Your task to perform on an android device: turn on notifications settings in the gmail app Image 0: 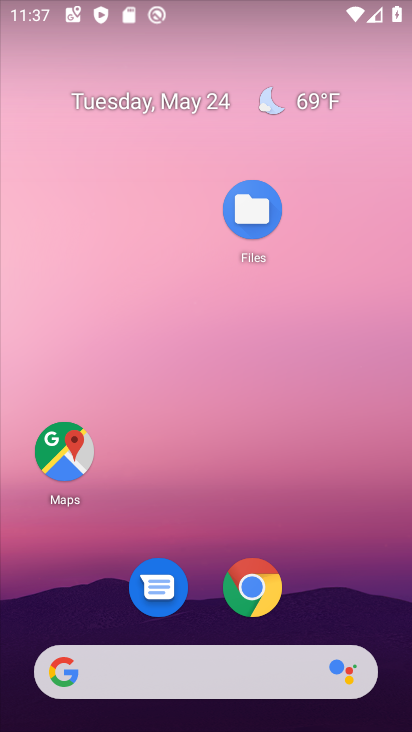
Step 0: drag from (310, 604) to (148, 213)
Your task to perform on an android device: turn on notifications settings in the gmail app Image 1: 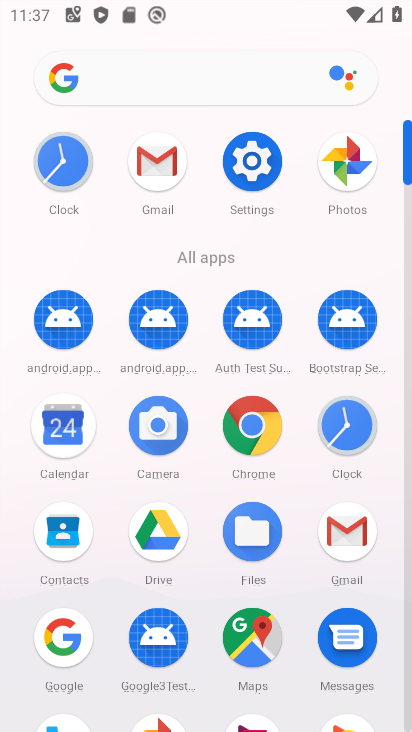
Step 1: click (148, 213)
Your task to perform on an android device: turn on notifications settings in the gmail app Image 2: 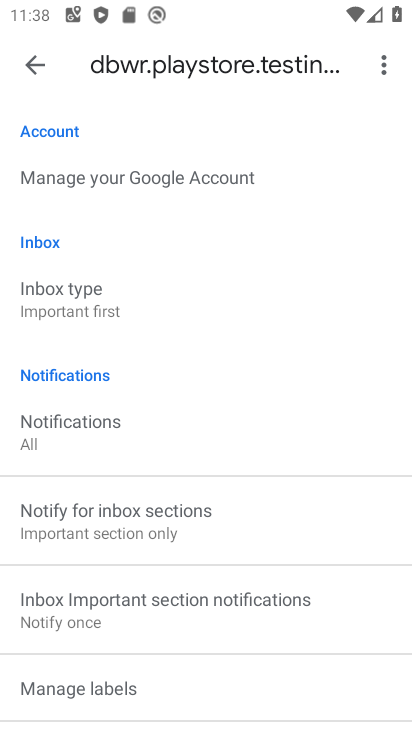
Step 2: drag from (112, 659) to (141, 366)
Your task to perform on an android device: turn on notifications settings in the gmail app Image 3: 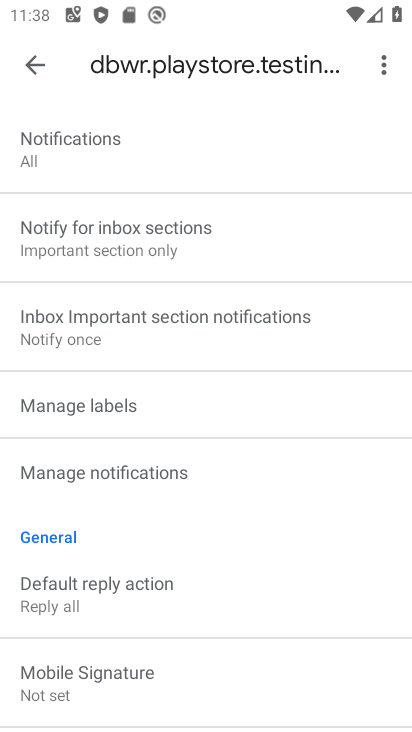
Step 3: click (84, 475)
Your task to perform on an android device: turn on notifications settings in the gmail app Image 4: 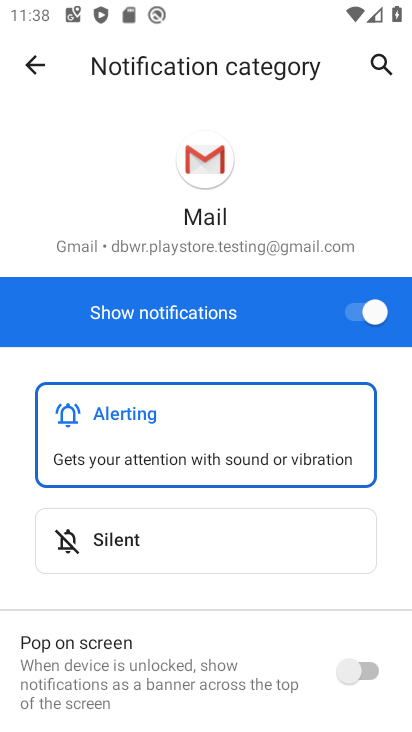
Step 4: task complete